Your task to perform on an android device: check battery use Image 0: 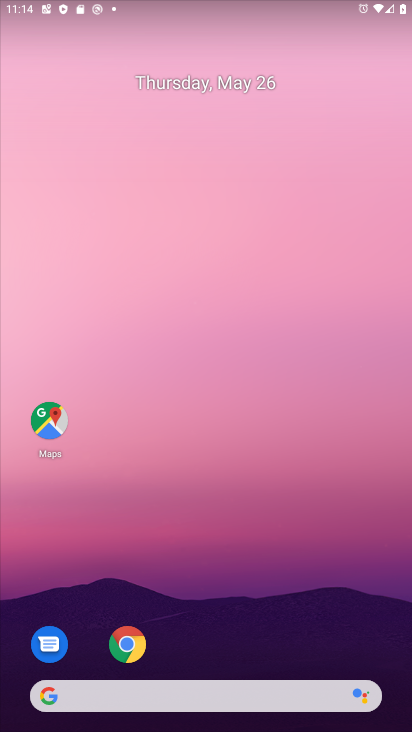
Step 0: drag from (239, 648) to (235, 280)
Your task to perform on an android device: check battery use Image 1: 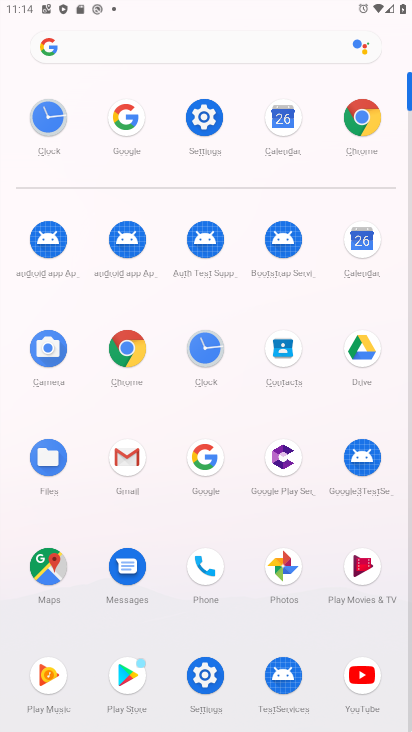
Step 1: click (213, 132)
Your task to perform on an android device: check battery use Image 2: 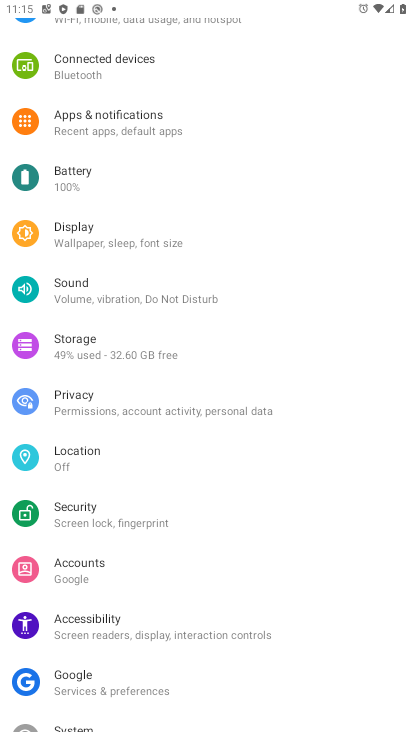
Step 2: click (125, 189)
Your task to perform on an android device: check battery use Image 3: 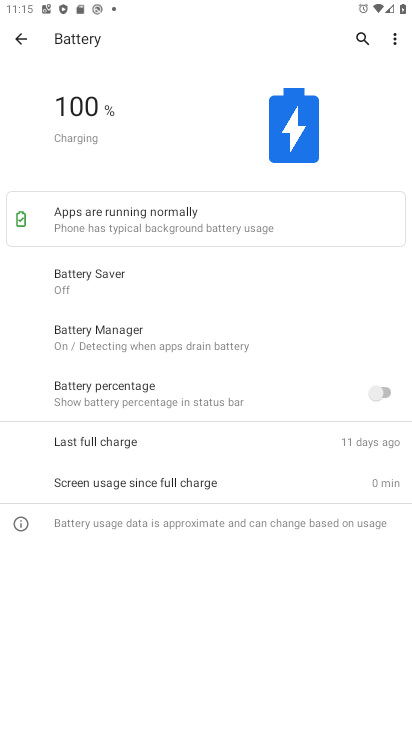
Step 3: click (391, 45)
Your task to perform on an android device: check battery use Image 4: 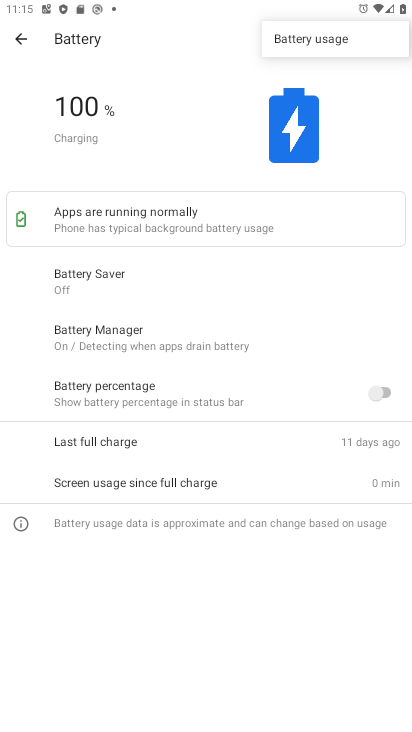
Step 4: click (312, 41)
Your task to perform on an android device: check battery use Image 5: 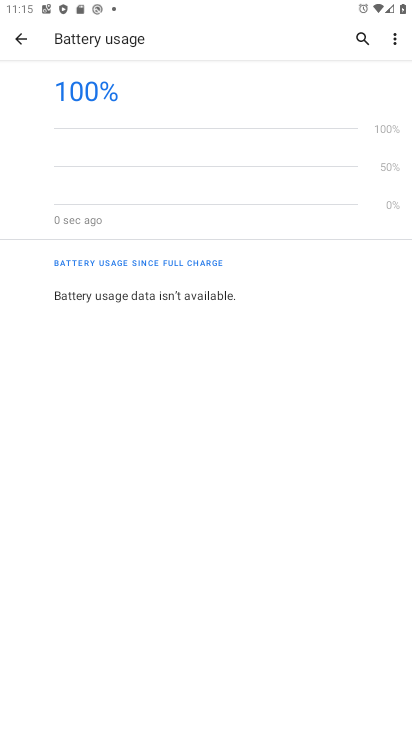
Step 5: task complete